Your task to perform on an android device: turn off sleep mode Image 0: 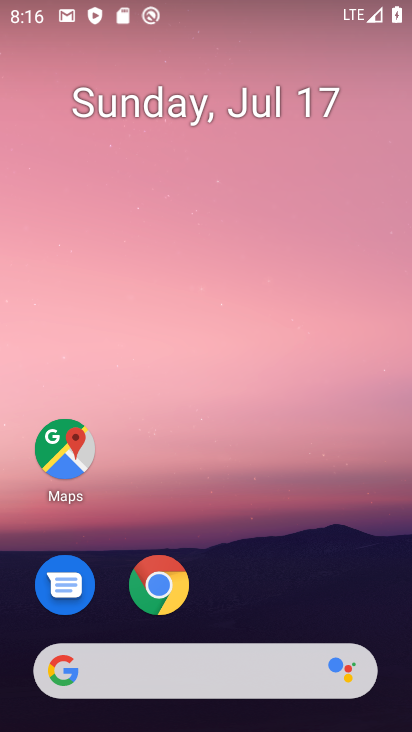
Step 0: drag from (205, 644) to (297, 153)
Your task to perform on an android device: turn off sleep mode Image 1: 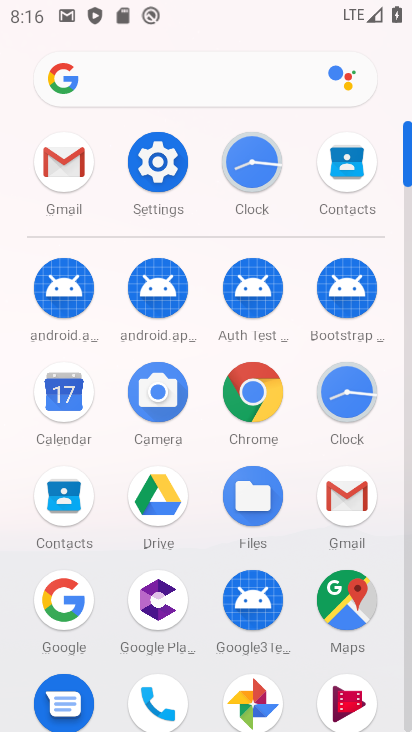
Step 1: click (156, 167)
Your task to perform on an android device: turn off sleep mode Image 2: 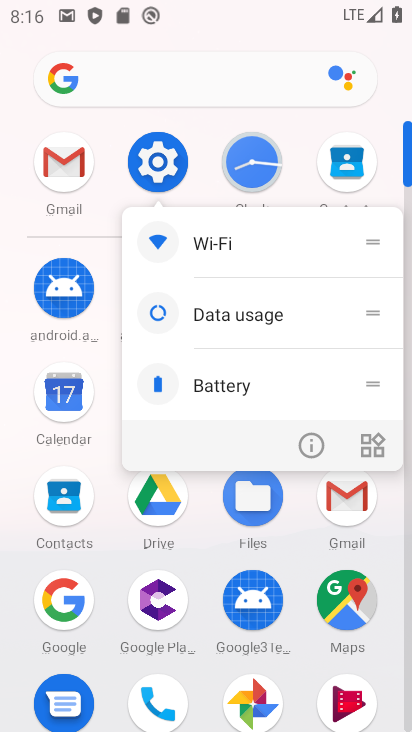
Step 2: click (158, 173)
Your task to perform on an android device: turn off sleep mode Image 3: 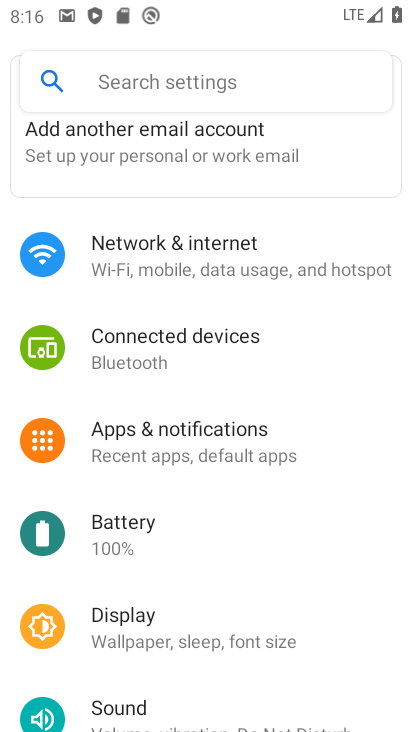
Step 3: click (209, 628)
Your task to perform on an android device: turn off sleep mode Image 4: 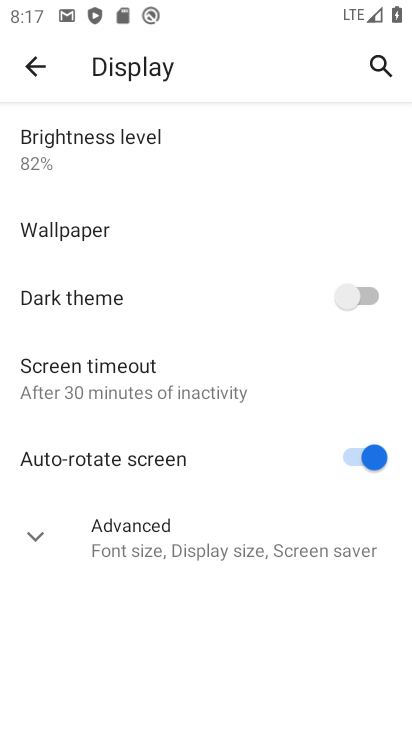
Step 4: task complete